Your task to perform on an android device: When is my next meeting? Image 0: 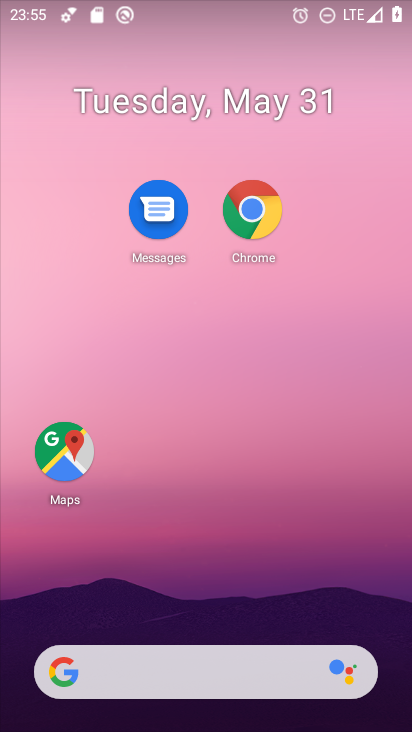
Step 0: press home button
Your task to perform on an android device: When is my next meeting? Image 1: 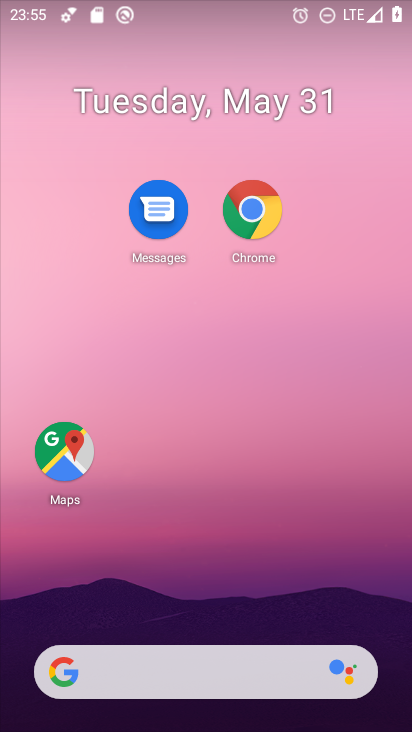
Step 1: drag from (225, 631) to (210, 128)
Your task to perform on an android device: When is my next meeting? Image 2: 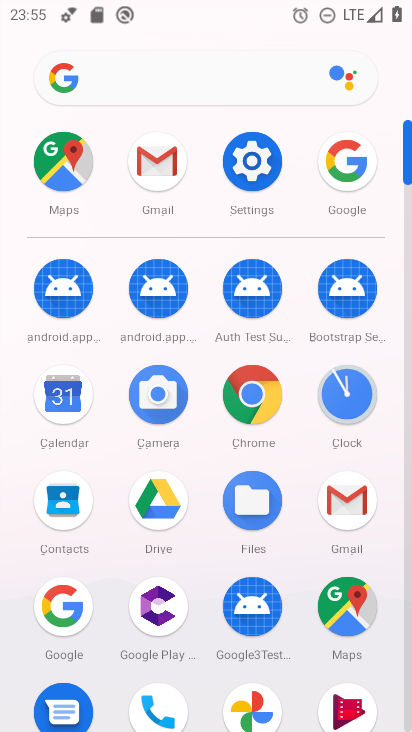
Step 2: click (65, 394)
Your task to perform on an android device: When is my next meeting? Image 3: 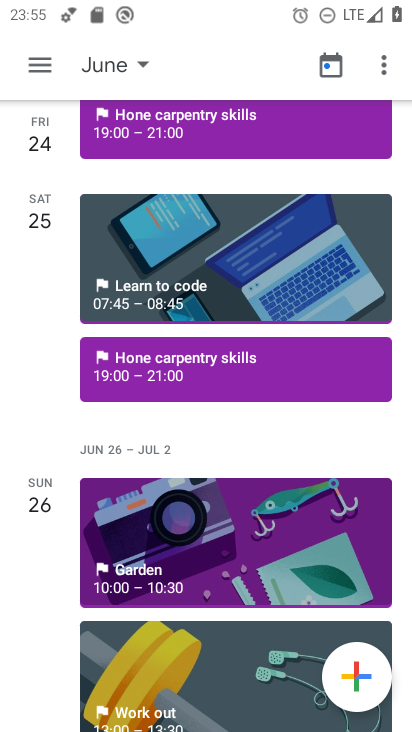
Step 3: click (136, 65)
Your task to perform on an android device: When is my next meeting? Image 4: 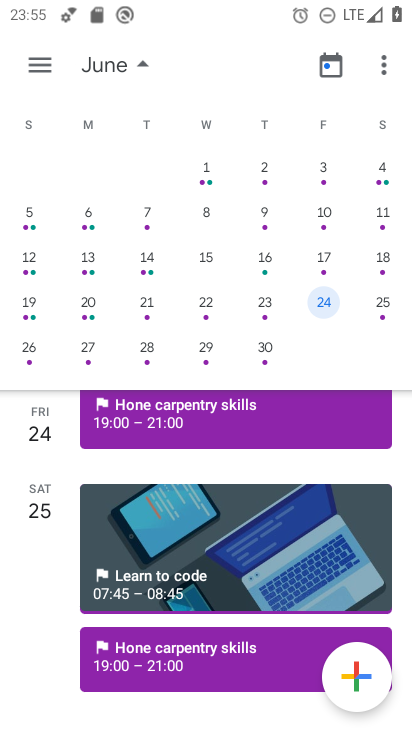
Step 4: drag from (79, 266) to (393, 284)
Your task to perform on an android device: When is my next meeting? Image 5: 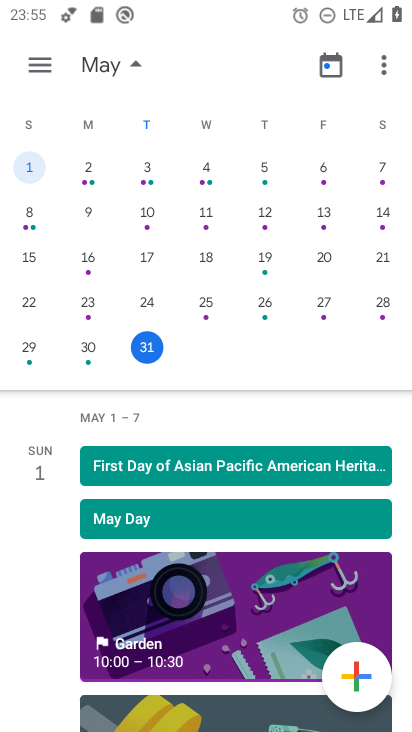
Step 5: click (145, 345)
Your task to perform on an android device: When is my next meeting? Image 6: 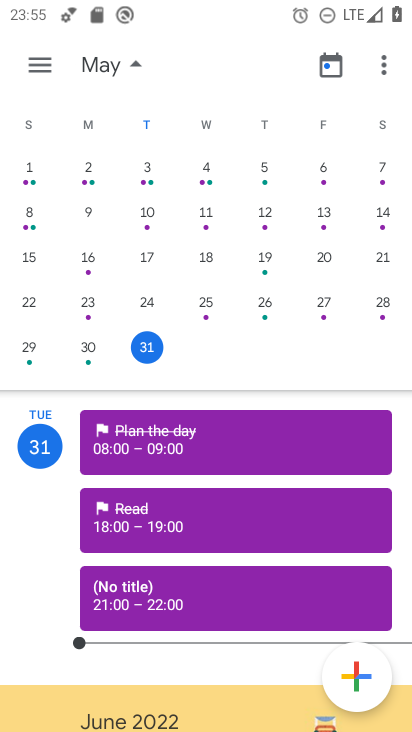
Step 6: click (135, 60)
Your task to perform on an android device: When is my next meeting? Image 7: 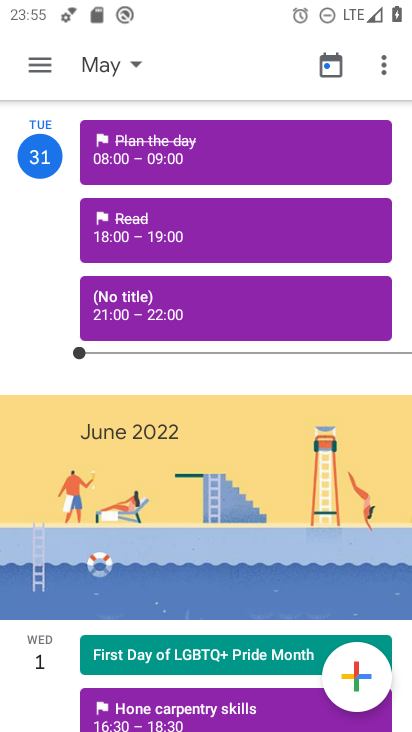
Step 7: click (56, 241)
Your task to perform on an android device: When is my next meeting? Image 8: 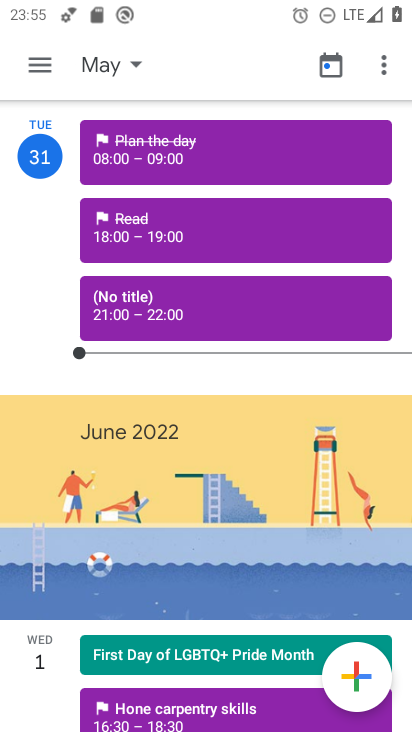
Step 8: task complete